Your task to perform on an android device: visit the assistant section in the google photos Image 0: 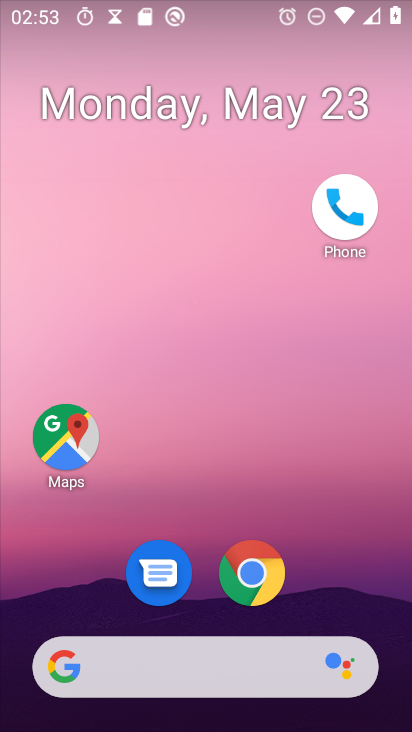
Step 0: press home button
Your task to perform on an android device: visit the assistant section in the google photos Image 1: 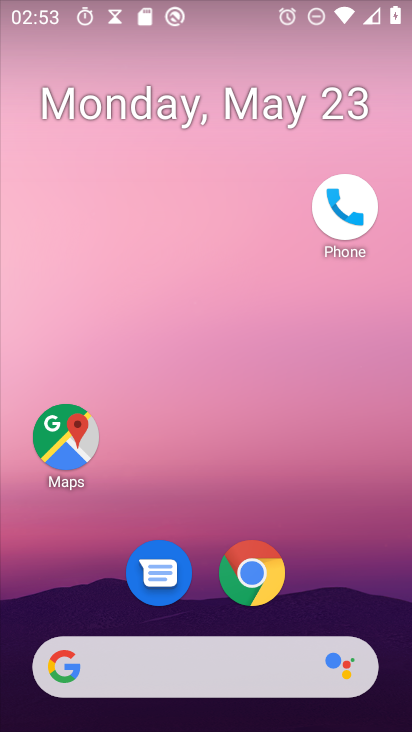
Step 1: drag from (133, 687) to (335, 140)
Your task to perform on an android device: visit the assistant section in the google photos Image 2: 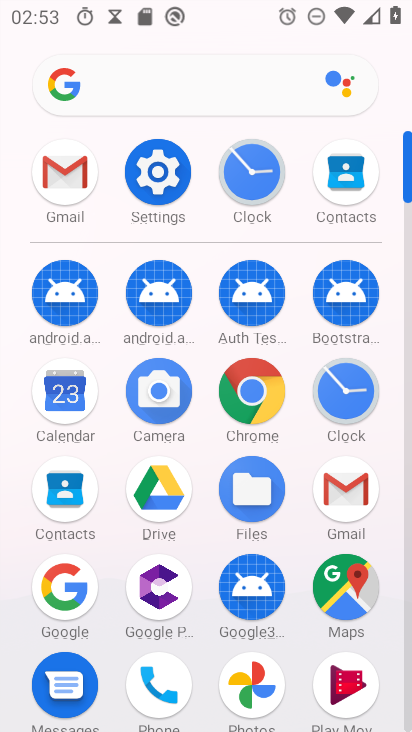
Step 2: click (248, 667)
Your task to perform on an android device: visit the assistant section in the google photos Image 3: 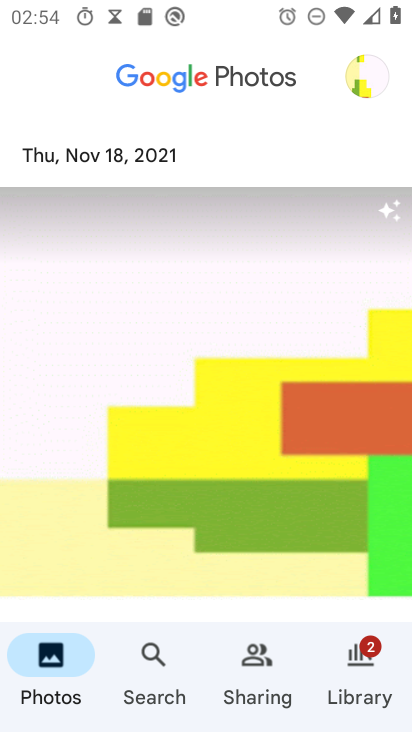
Step 3: click (153, 669)
Your task to perform on an android device: visit the assistant section in the google photos Image 4: 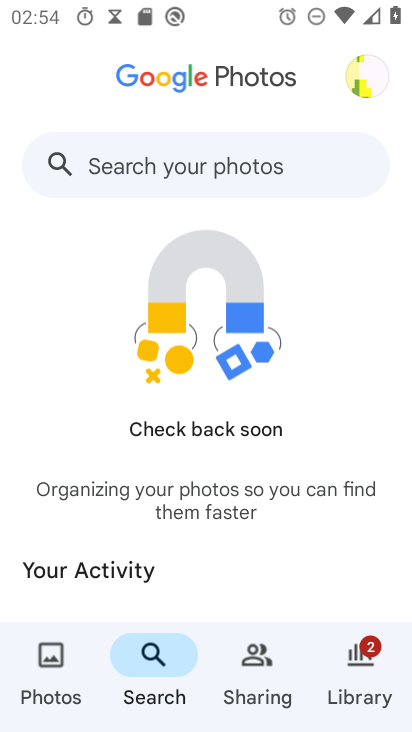
Step 4: task complete